Your task to perform on an android device: Go to Maps Image 0: 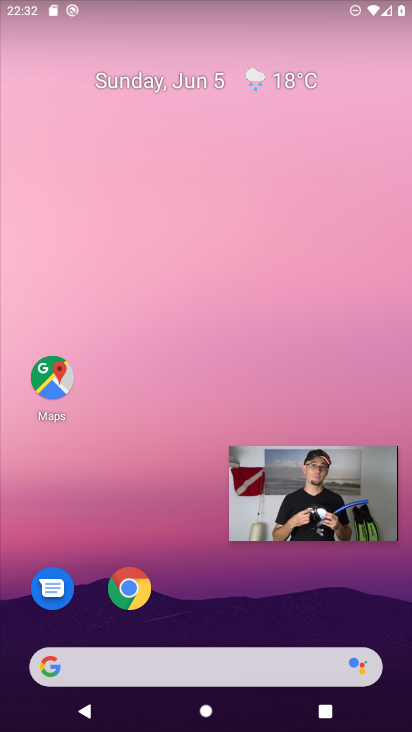
Step 0: drag from (244, 607) to (260, 256)
Your task to perform on an android device: Go to Maps Image 1: 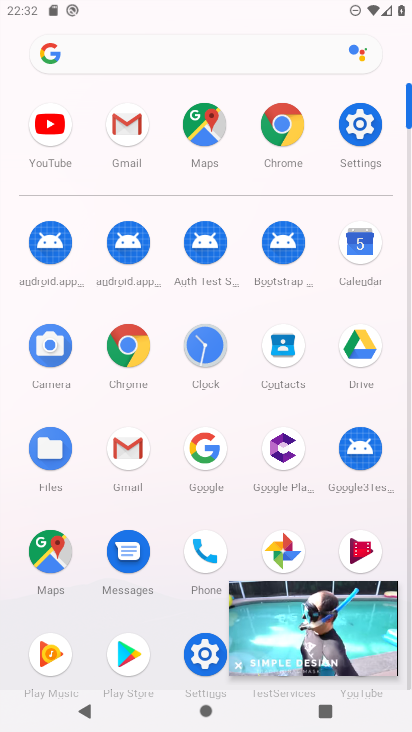
Step 1: click (47, 563)
Your task to perform on an android device: Go to Maps Image 2: 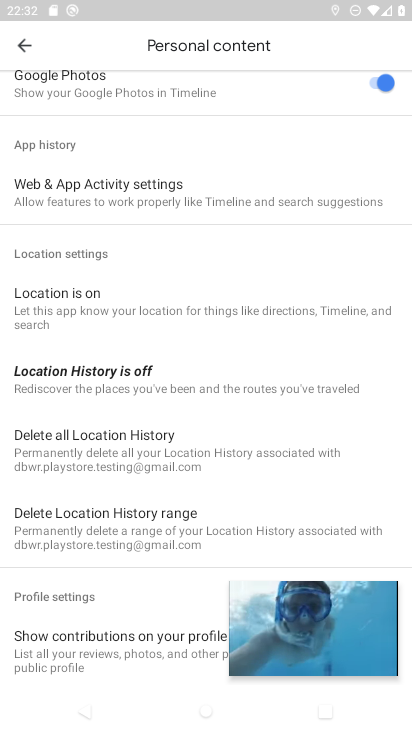
Step 2: task complete